Your task to perform on an android device: Open privacy settings Image 0: 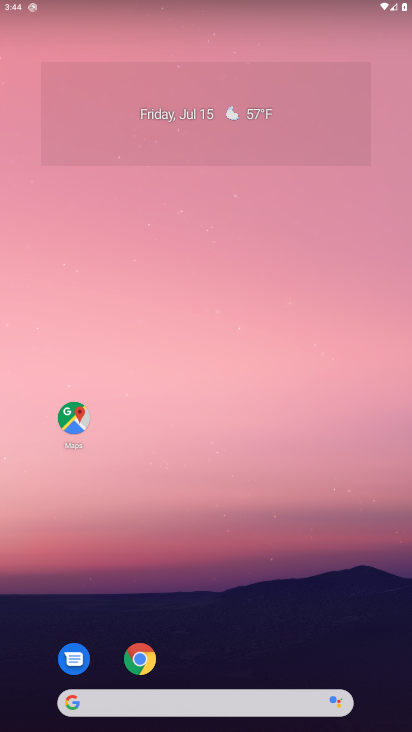
Step 0: drag from (39, 699) to (145, 218)
Your task to perform on an android device: Open privacy settings Image 1: 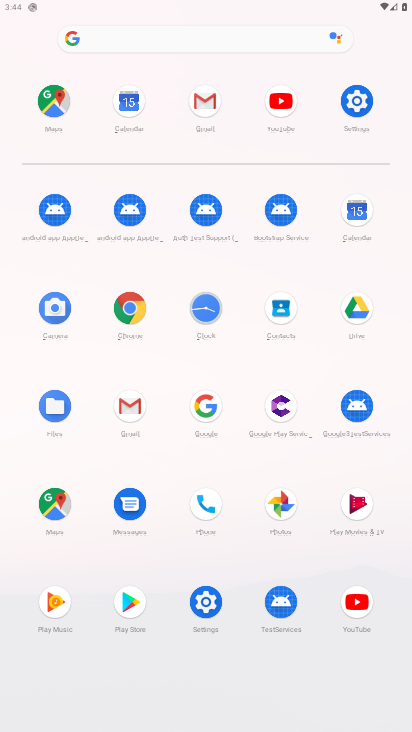
Step 1: click (203, 602)
Your task to perform on an android device: Open privacy settings Image 2: 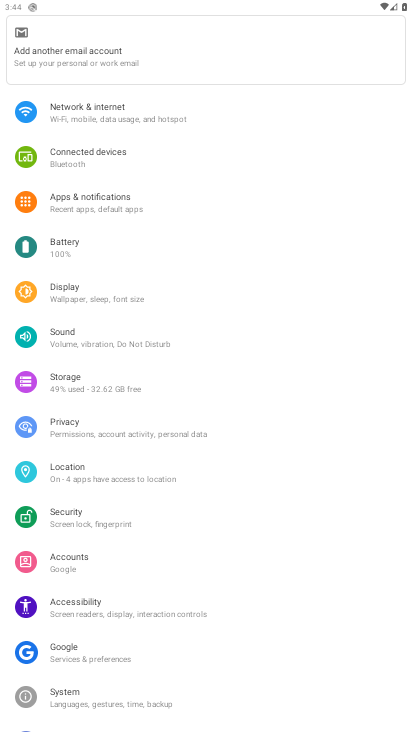
Step 2: click (92, 109)
Your task to perform on an android device: Open privacy settings Image 3: 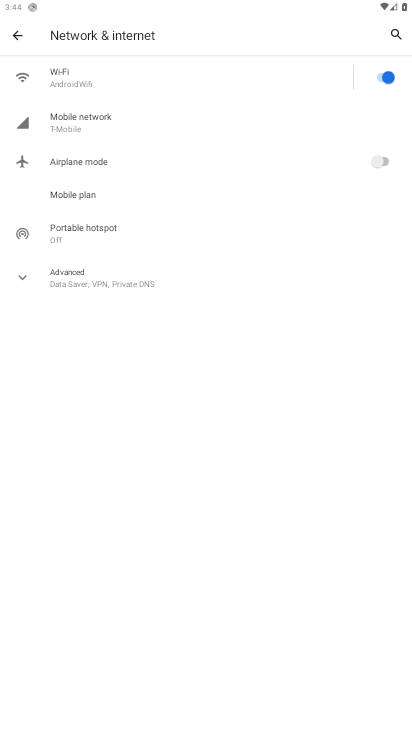
Step 3: click (19, 28)
Your task to perform on an android device: Open privacy settings Image 4: 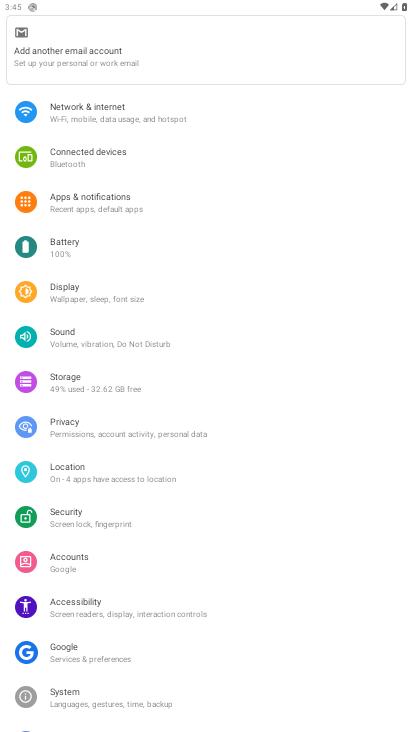
Step 4: click (117, 429)
Your task to perform on an android device: Open privacy settings Image 5: 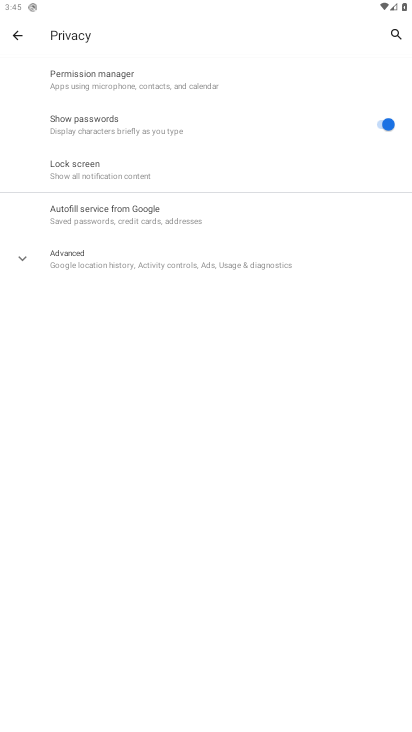
Step 5: task complete